Your task to perform on an android device: change keyboard looks Image 0: 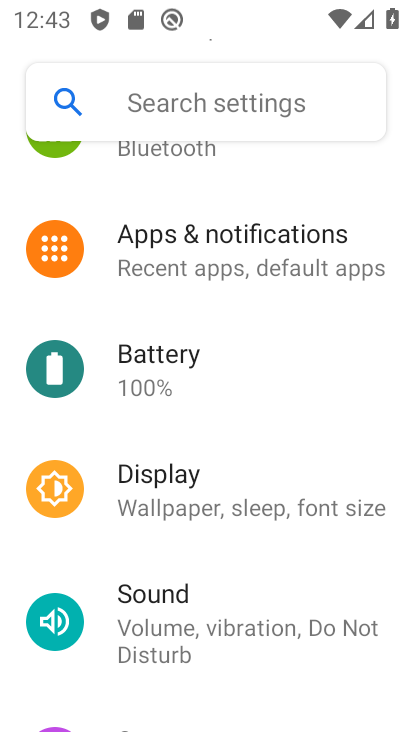
Step 0: drag from (177, 640) to (186, 36)
Your task to perform on an android device: change keyboard looks Image 1: 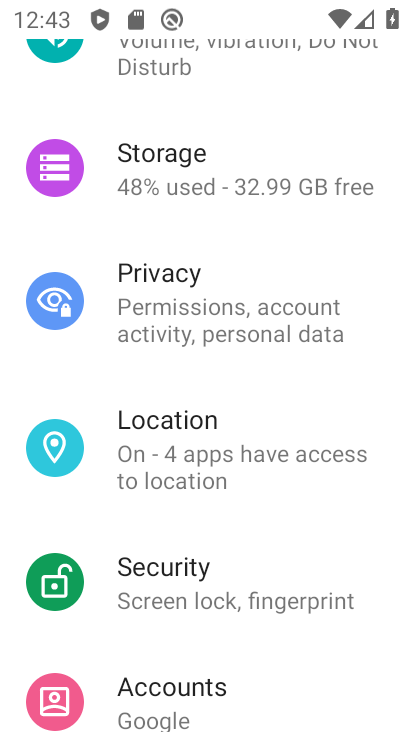
Step 1: drag from (168, 621) to (214, 26)
Your task to perform on an android device: change keyboard looks Image 2: 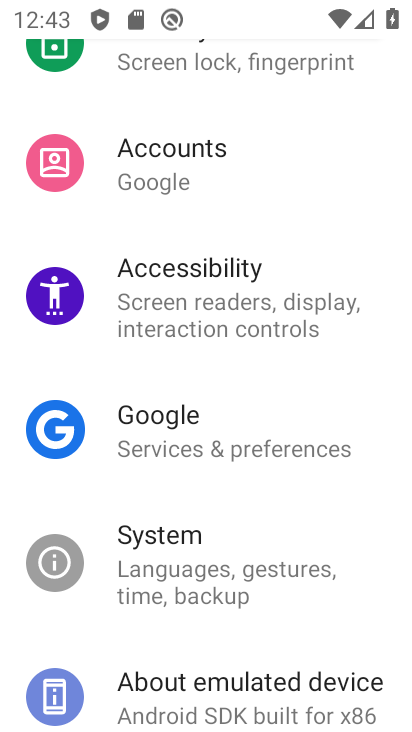
Step 2: drag from (274, 614) to (251, 175)
Your task to perform on an android device: change keyboard looks Image 3: 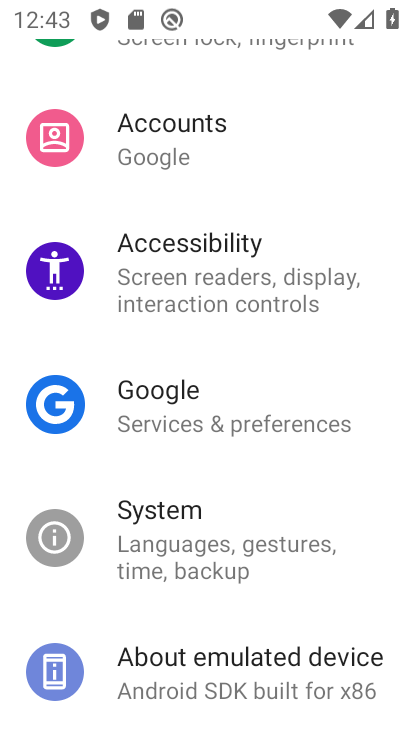
Step 3: click (210, 517)
Your task to perform on an android device: change keyboard looks Image 4: 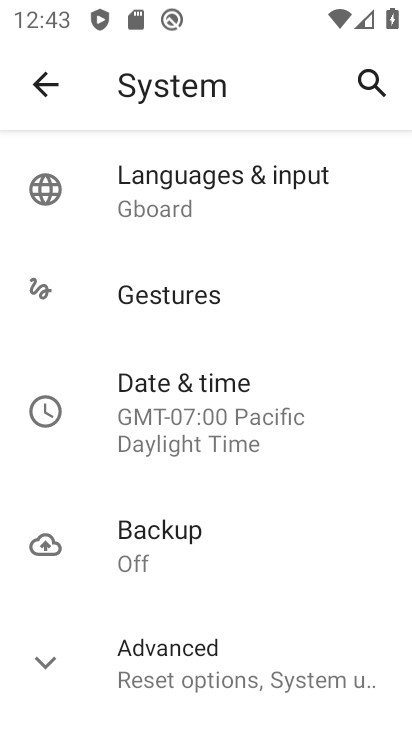
Step 4: click (173, 213)
Your task to perform on an android device: change keyboard looks Image 5: 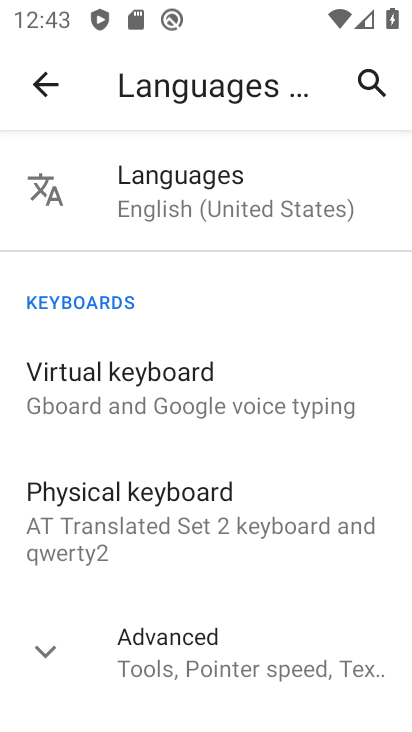
Step 5: click (186, 413)
Your task to perform on an android device: change keyboard looks Image 6: 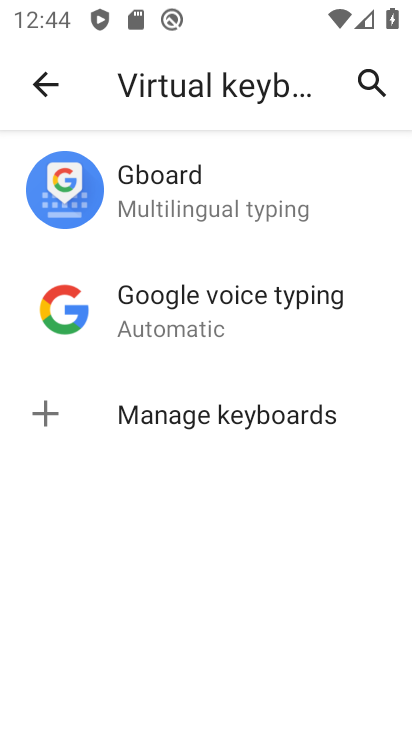
Step 6: click (193, 186)
Your task to perform on an android device: change keyboard looks Image 7: 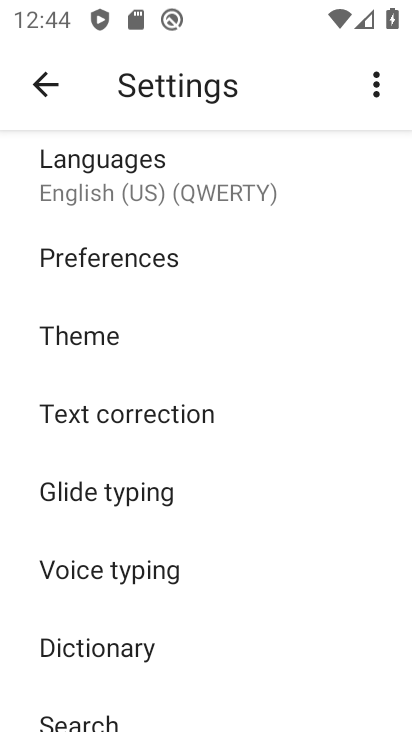
Step 7: click (178, 341)
Your task to perform on an android device: change keyboard looks Image 8: 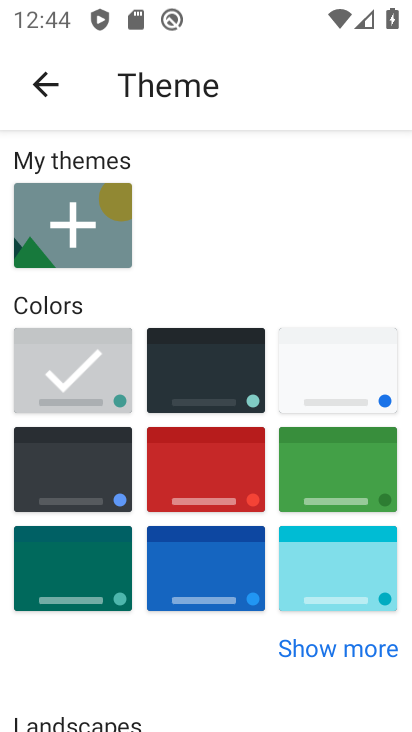
Step 8: click (243, 478)
Your task to perform on an android device: change keyboard looks Image 9: 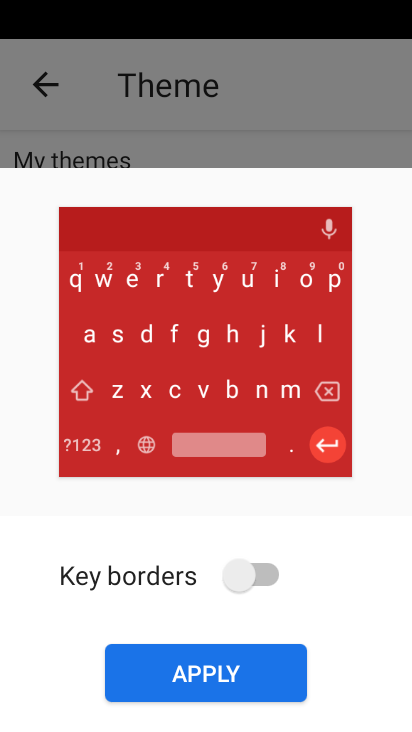
Step 9: click (282, 685)
Your task to perform on an android device: change keyboard looks Image 10: 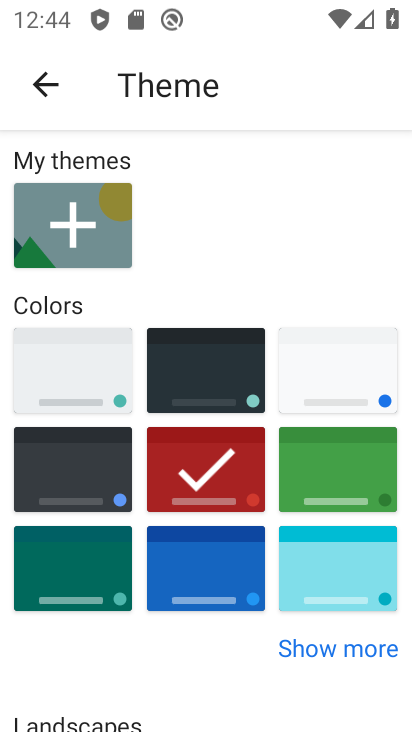
Step 10: task complete